Your task to perform on an android device: change notifications settings Image 0: 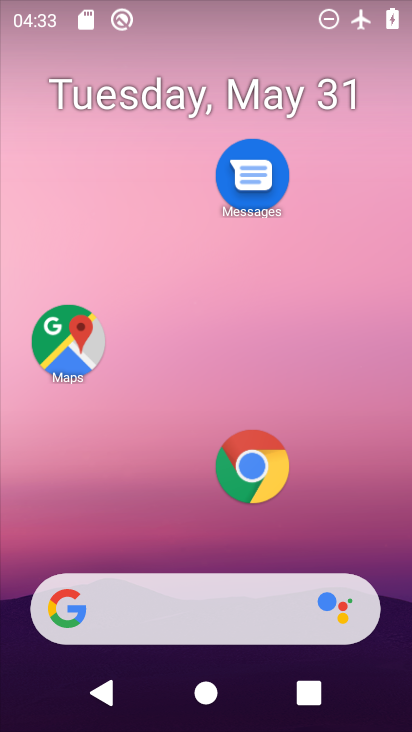
Step 0: drag from (132, 485) to (116, 34)
Your task to perform on an android device: change notifications settings Image 1: 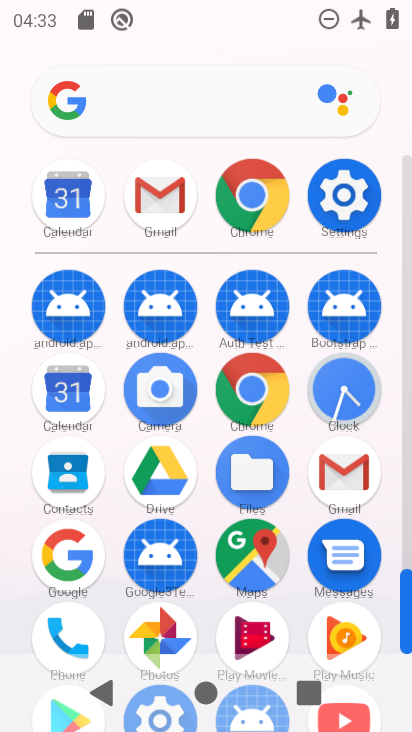
Step 1: click (348, 195)
Your task to perform on an android device: change notifications settings Image 2: 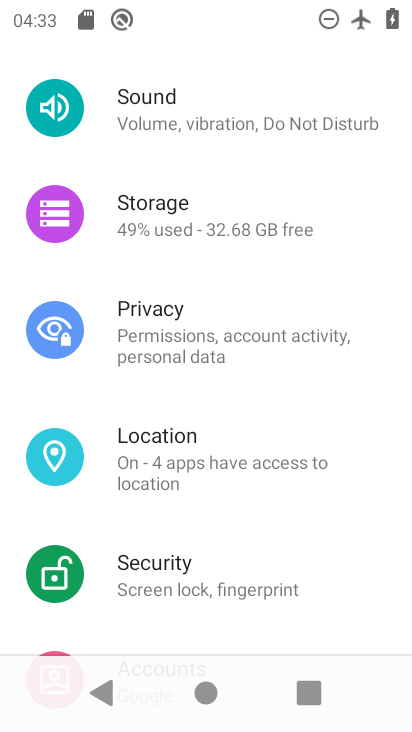
Step 2: drag from (273, 185) to (171, 700)
Your task to perform on an android device: change notifications settings Image 3: 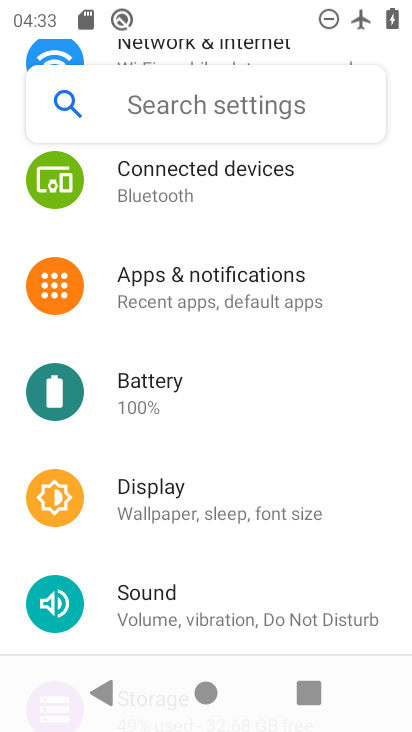
Step 3: click (204, 291)
Your task to perform on an android device: change notifications settings Image 4: 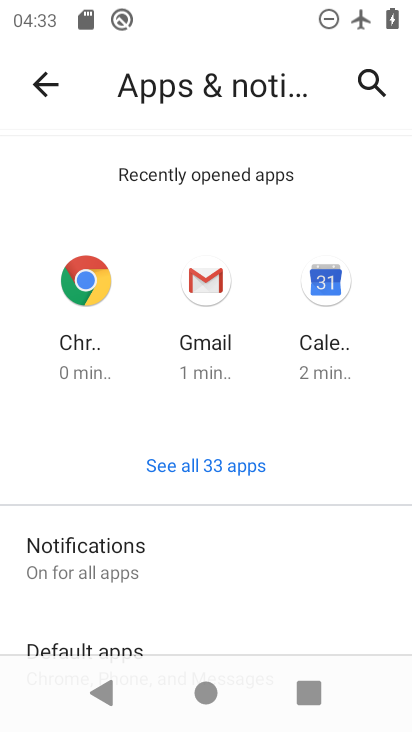
Step 4: click (109, 556)
Your task to perform on an android device: change notifications settings Image 5: 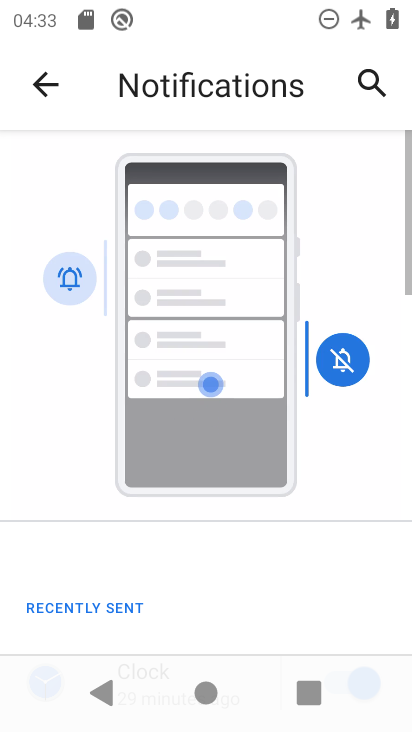
Step 5: drag from (145, 606) to (242, 60)
Your task to perform on an android device: change notifications settings Image 6: 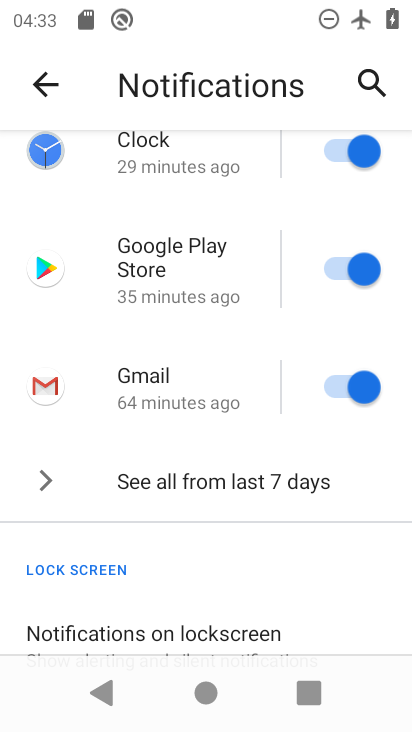
Step 6: drag from (219, 634) to (267, 160)
Your task to perform on an android device: change notifications settings Image 7: 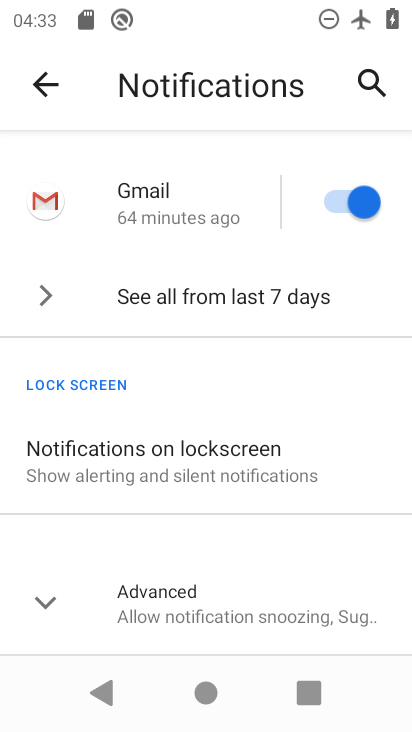
Step 7: click (195, 615)
Your task to perform on an android device: change notifications settings Image 8: 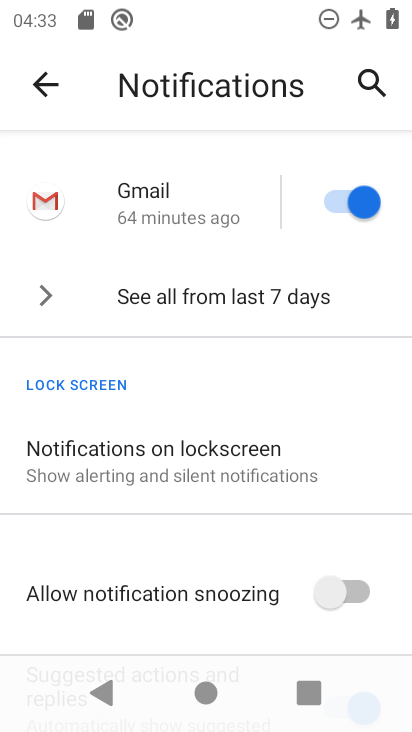
Step 8: click (335, 586)
Your task to perform on an android device: change notifications settings Image 9: 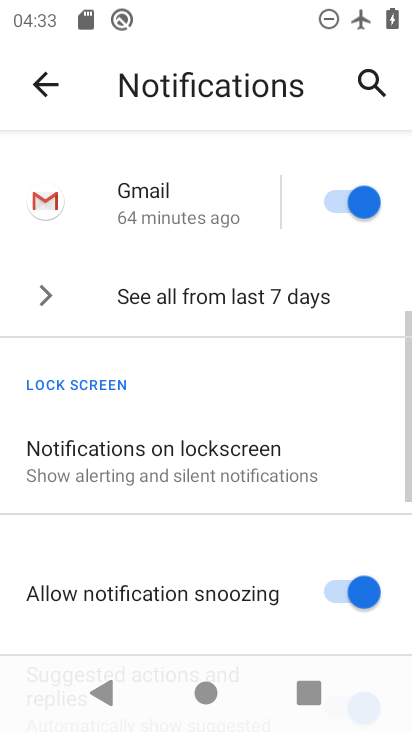
Step 9: task complete